Your task to perform on an android device: all mails in gmail Image 0: 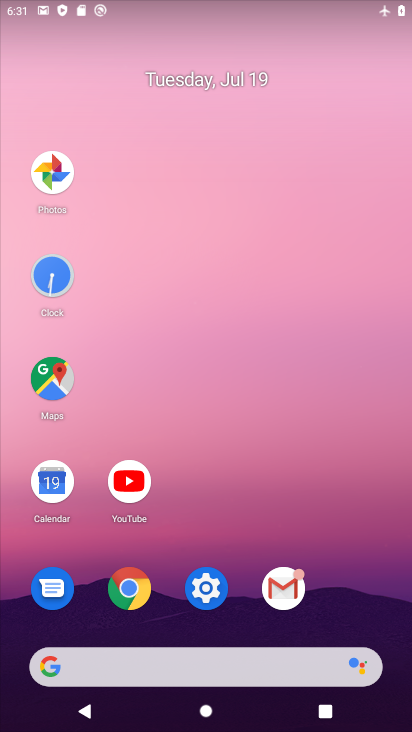
Step 0: click (282, 575)
Your task to perform on an android device: all mails in gmail Image 1: 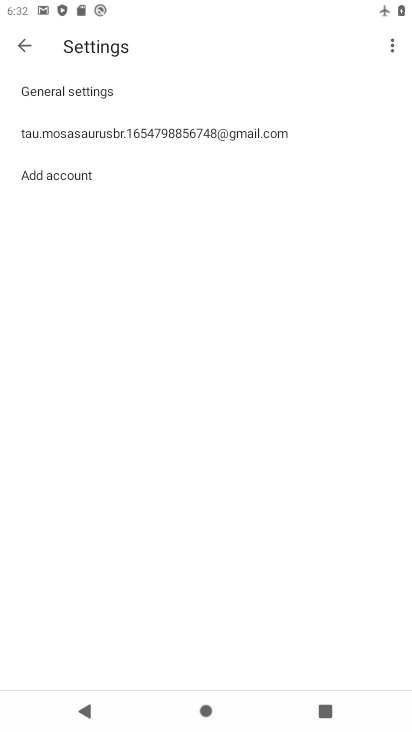
Step 1: click (20, 41)
Your task to perform on an android device: all mails in gmail Image 2: 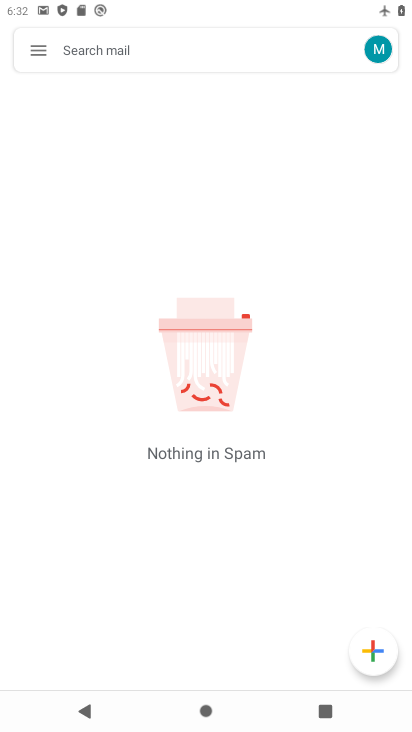
Step 2: click (33, 49)
Your task to perform on an android device: all mails in gmail Image 3: 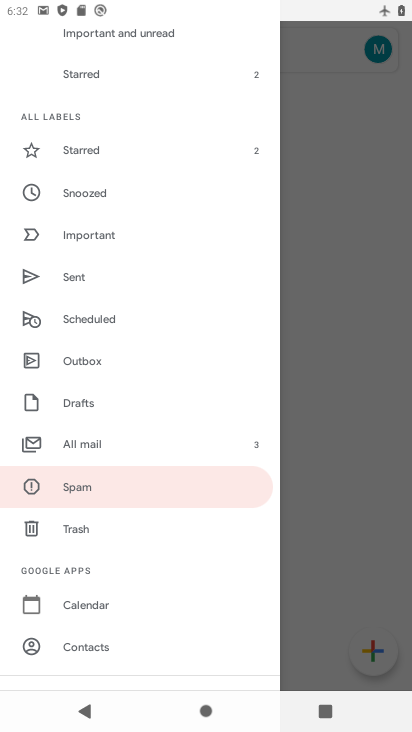
Step 3: click (90, 442)
Your task to perform on an android device: all mails in gmail Image 4: 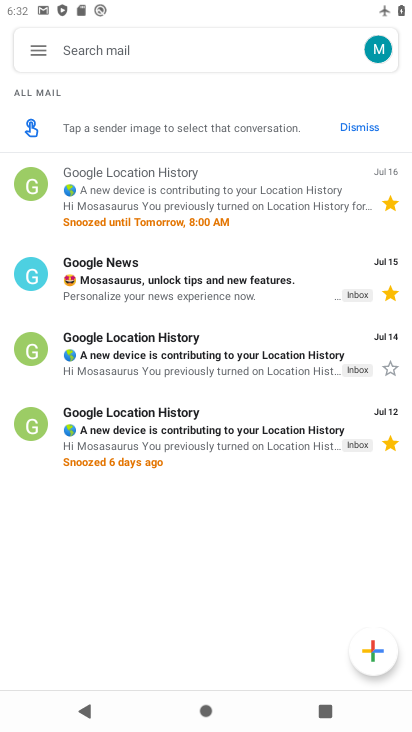
Step 4: task complete